Your task to perform on an android device: Check the weather Image 0: 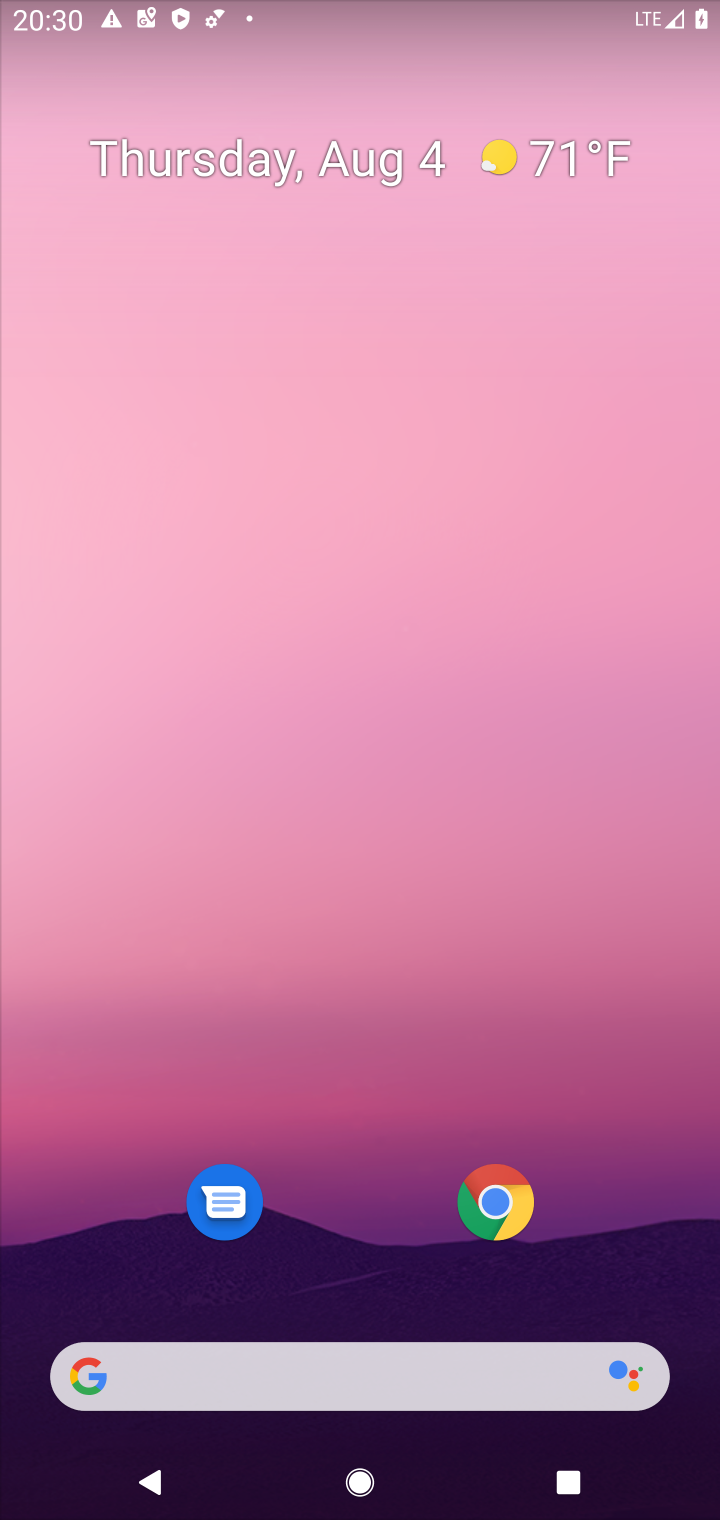
Step 0: drag from (358, 1075) to (358, 361)
Your task to perform on an android device: Check the weather Image 1: 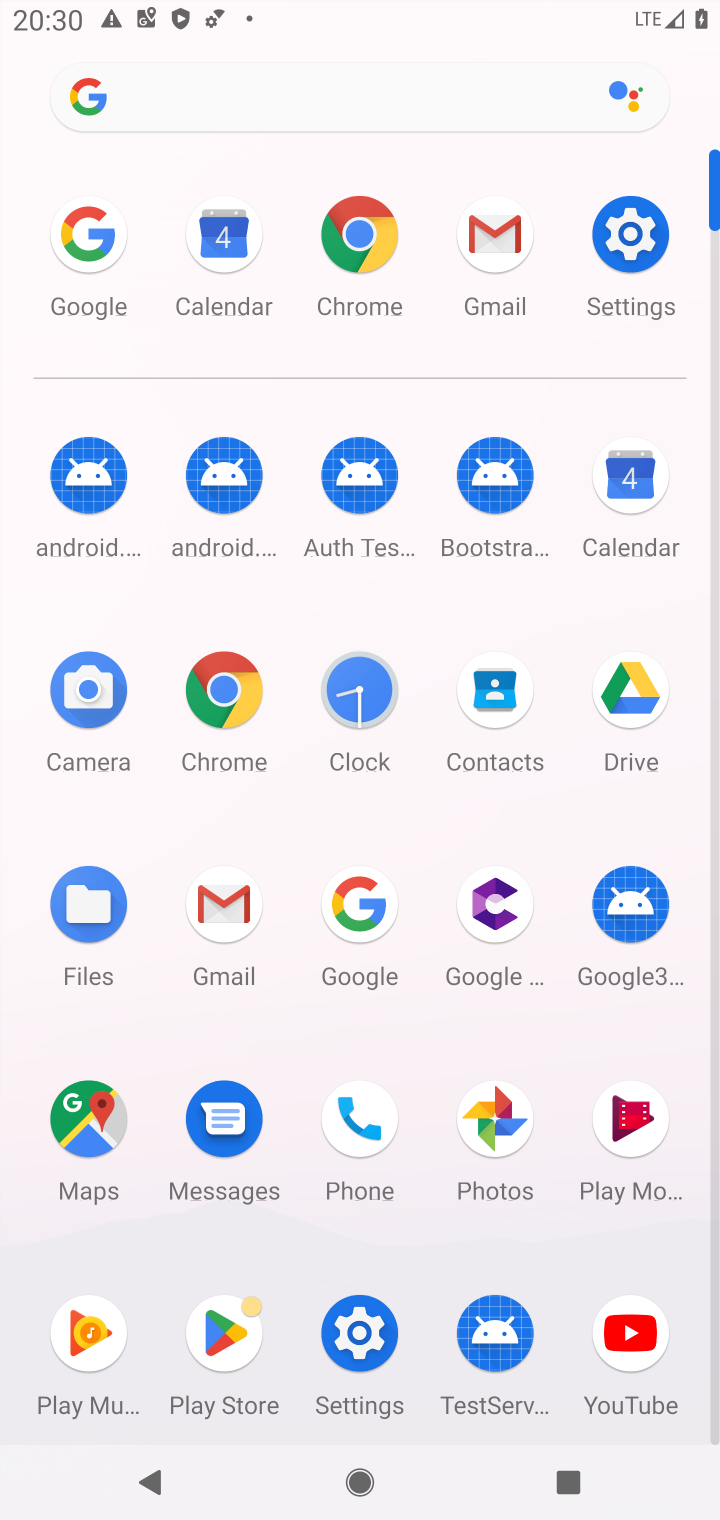
Step 1: click (351, 914)
Your task to perform on an android device: Check the weather Image 2: 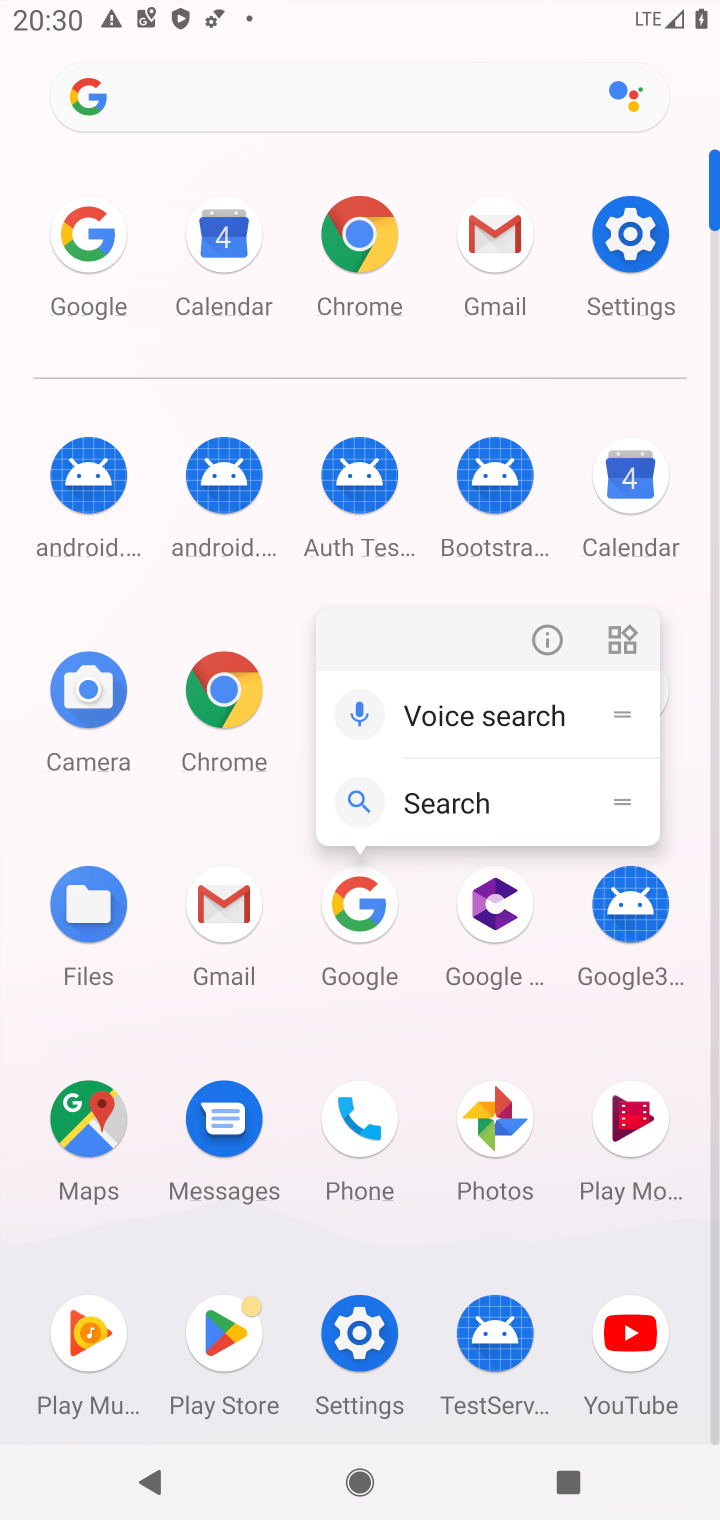
Step 2: click (353, 916)
Your task to perform on an android device: Check the weather Image 3: 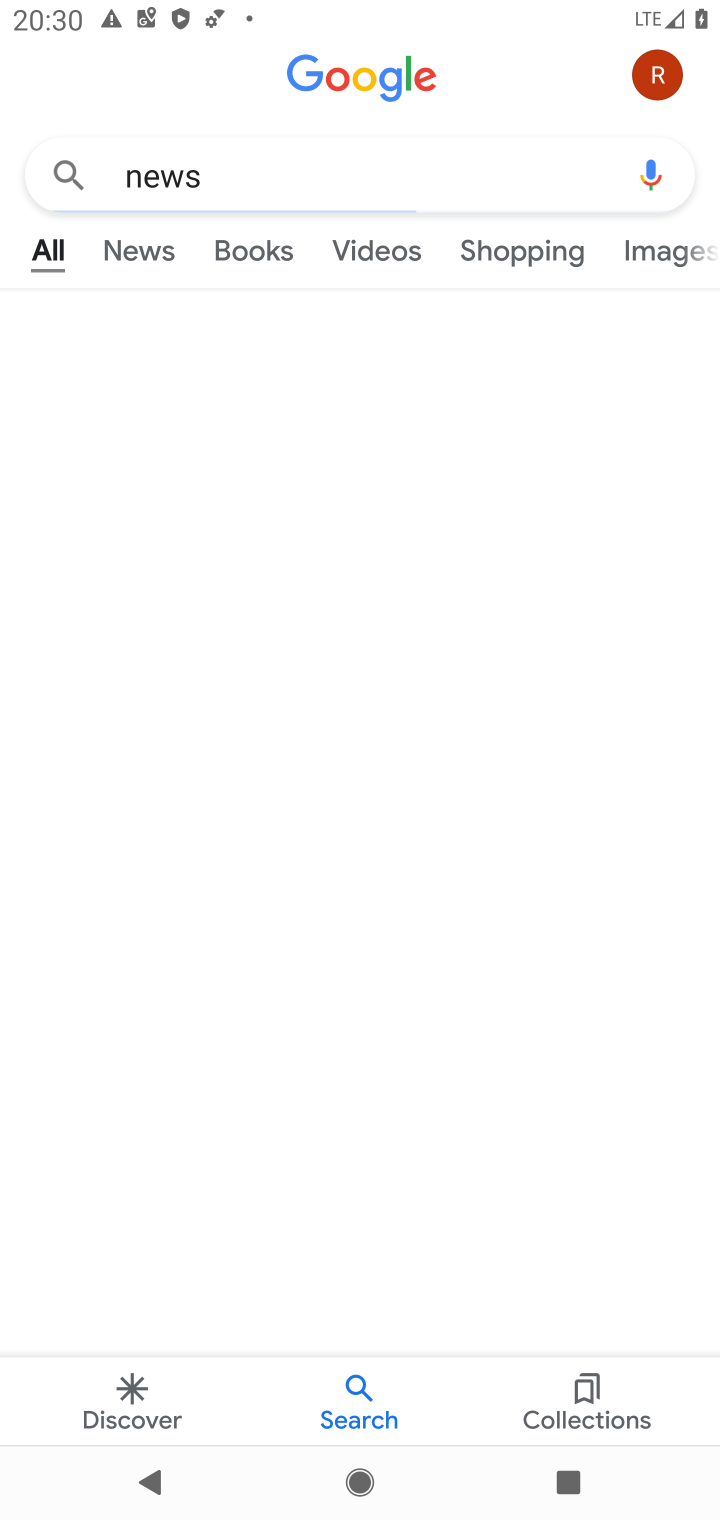
Step 3: click (265, 174)
Your task to perform on an android device: Check the weather Image 4: 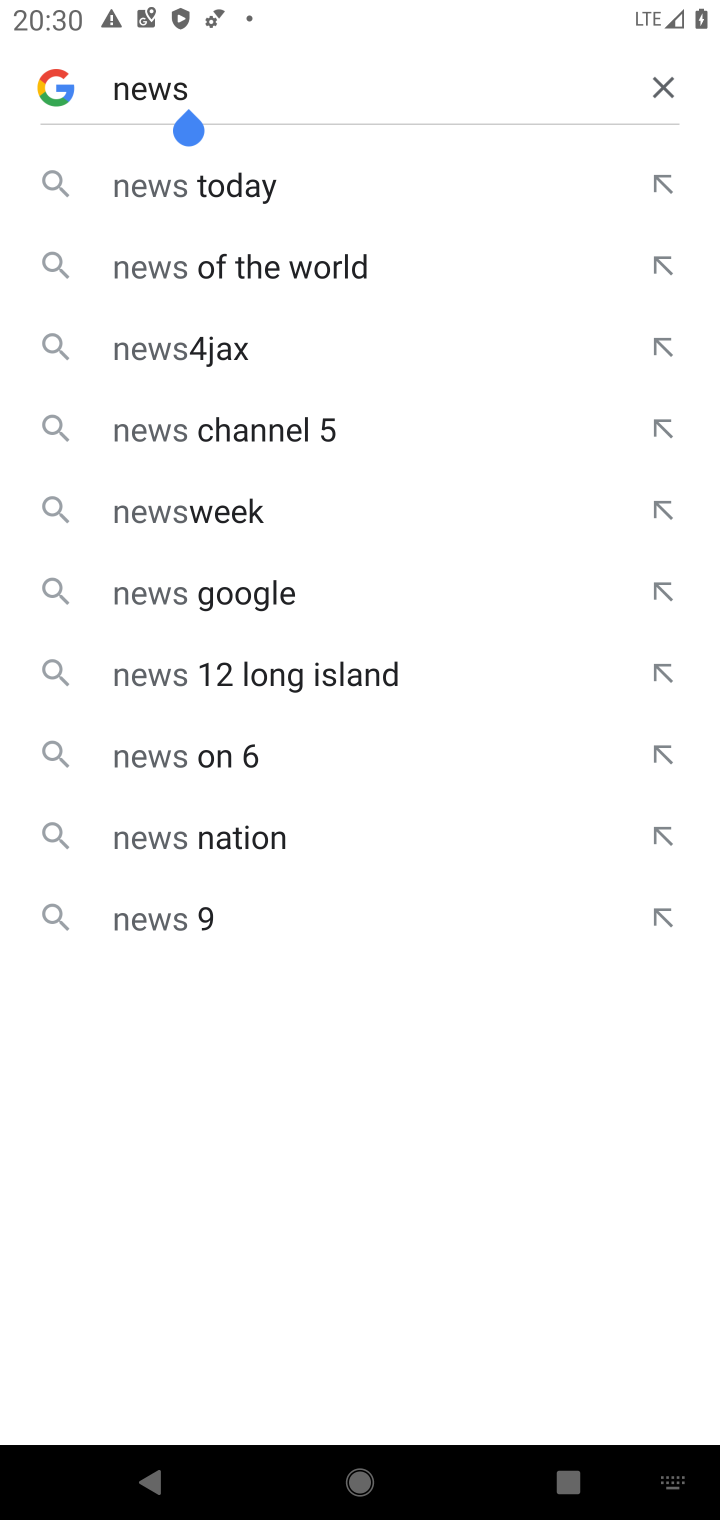
Step 4: click (654, 69)
Your task to perform on an android device: Check the weather Image 5: 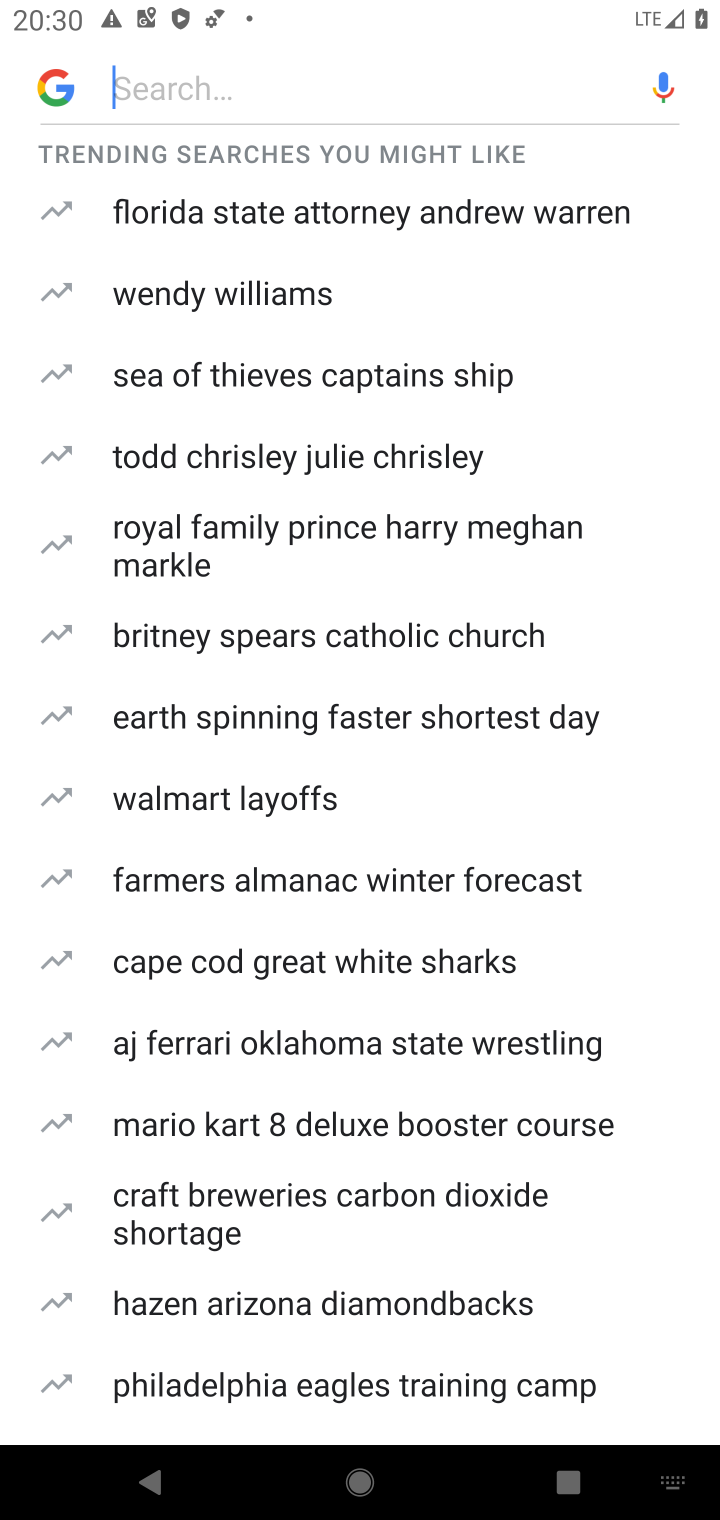
Step 5: type "weather"
Your task to perform on an android device: Check the weather Image 6: 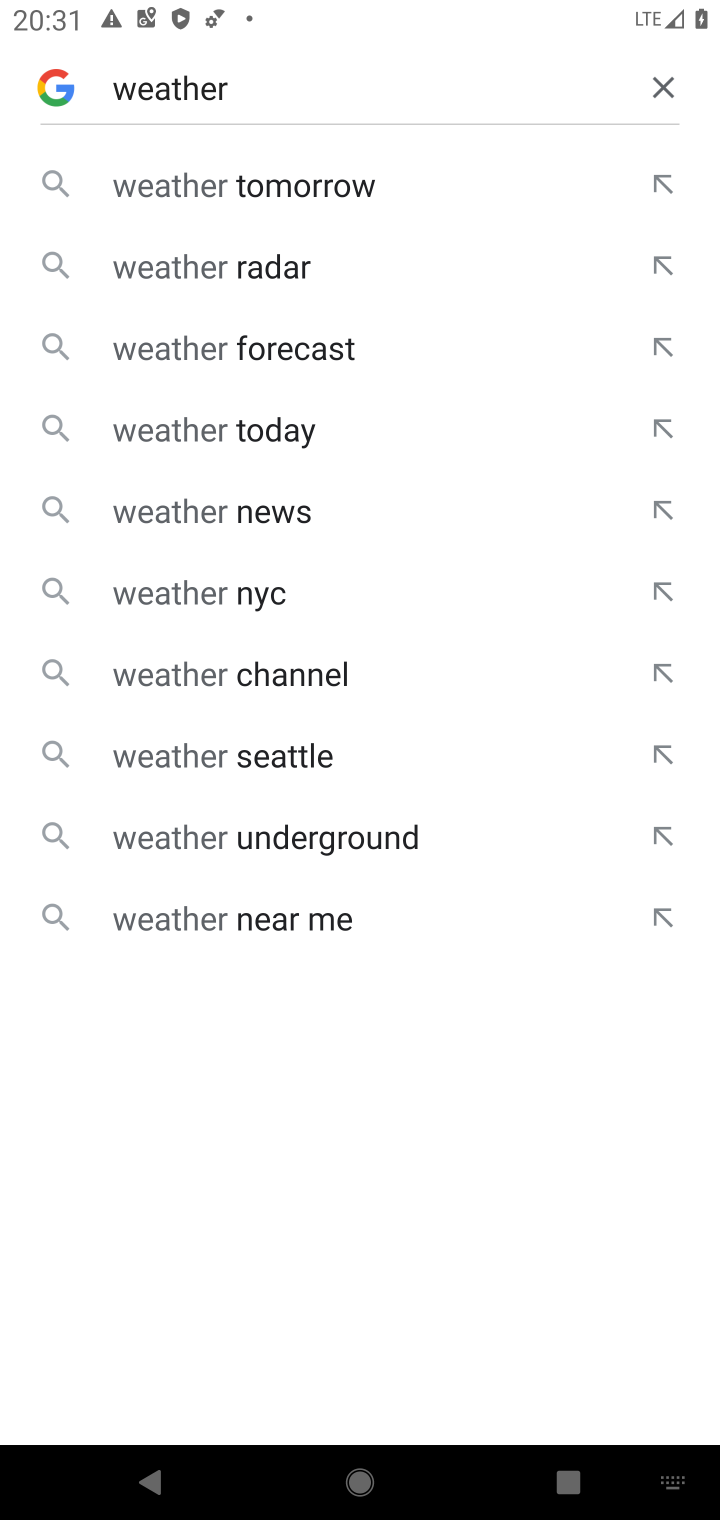
Step 6: click (219, 438)
Your task to perform on an android device: Check the weather Image 7: 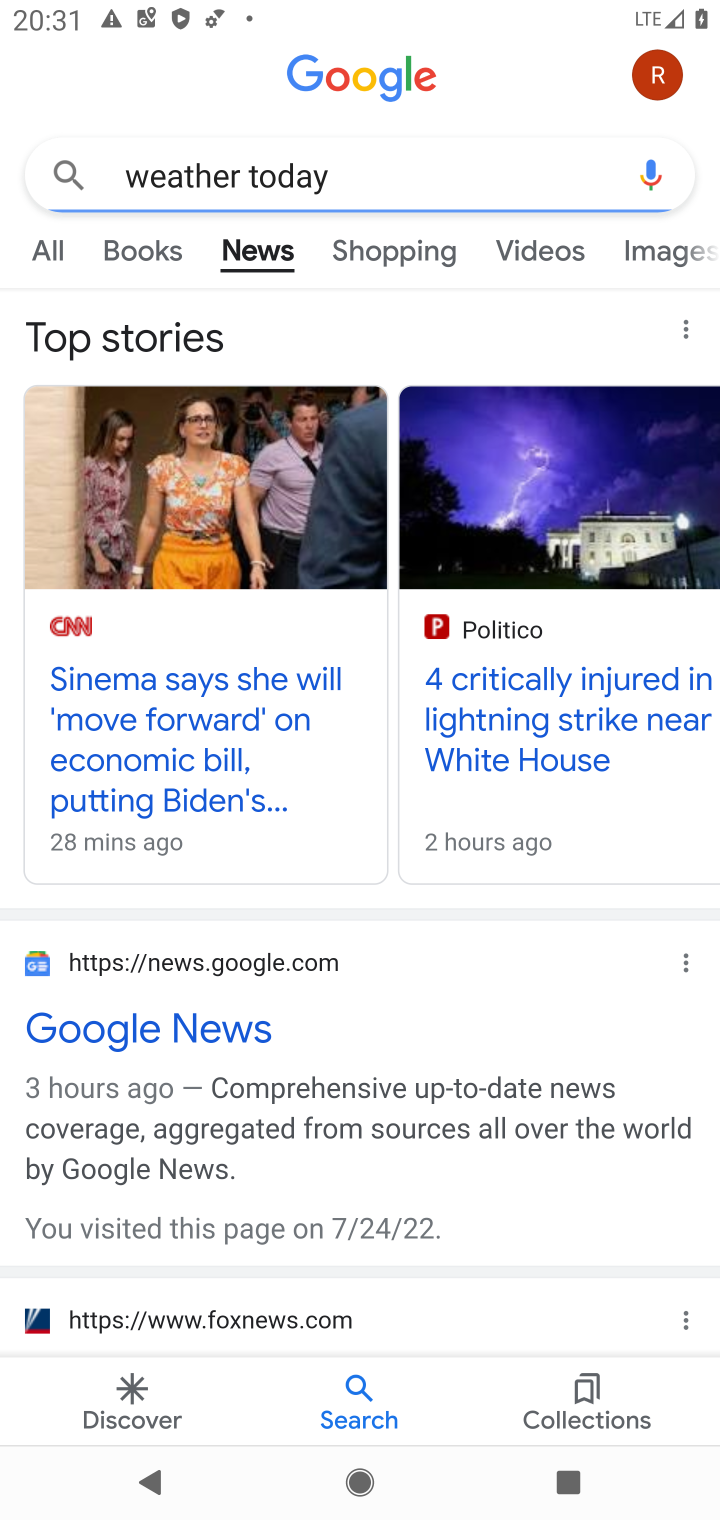
Step 7: click (55, 224)
Your task to perform on an android device: Check the weather Image 8: 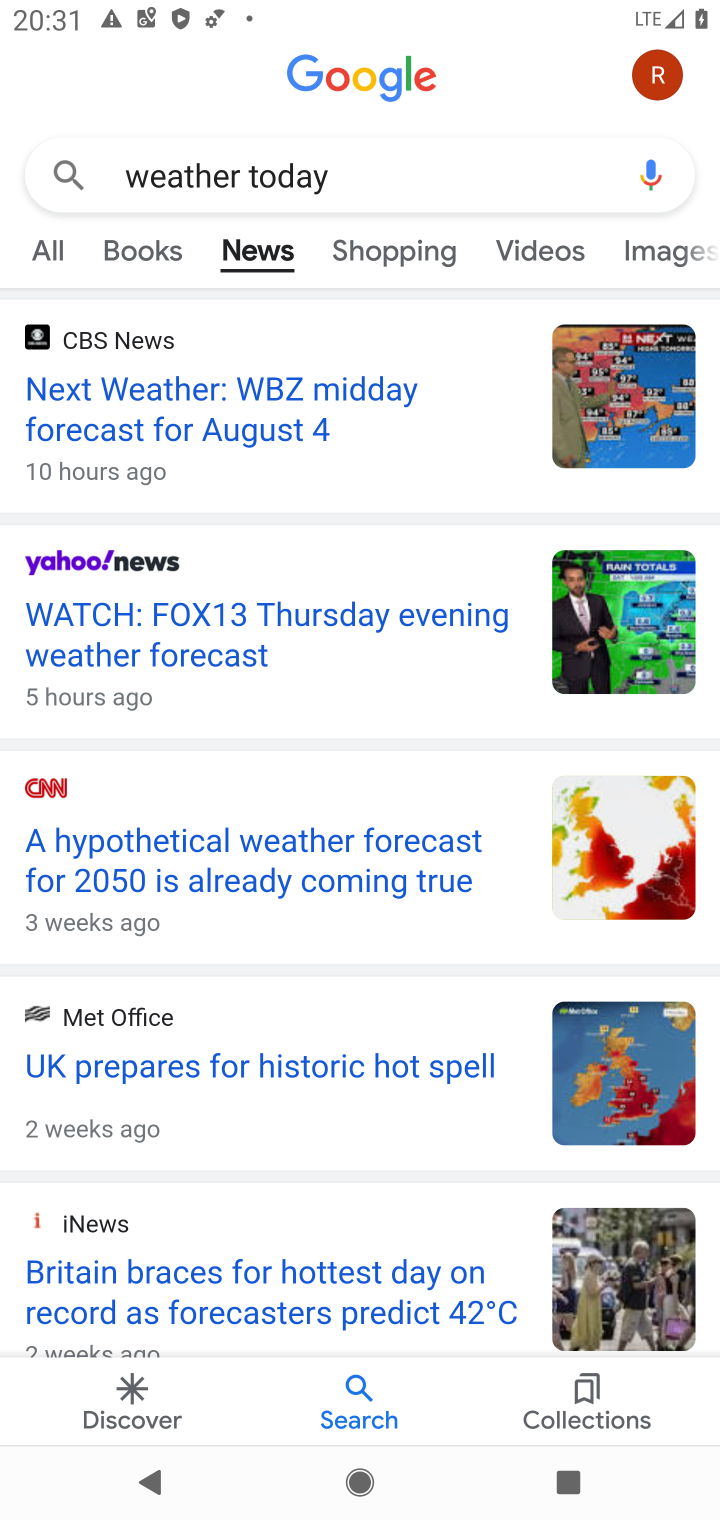
Step 8: click (50, 252)
Your task to perform on an android device: Check the weather Image 9: 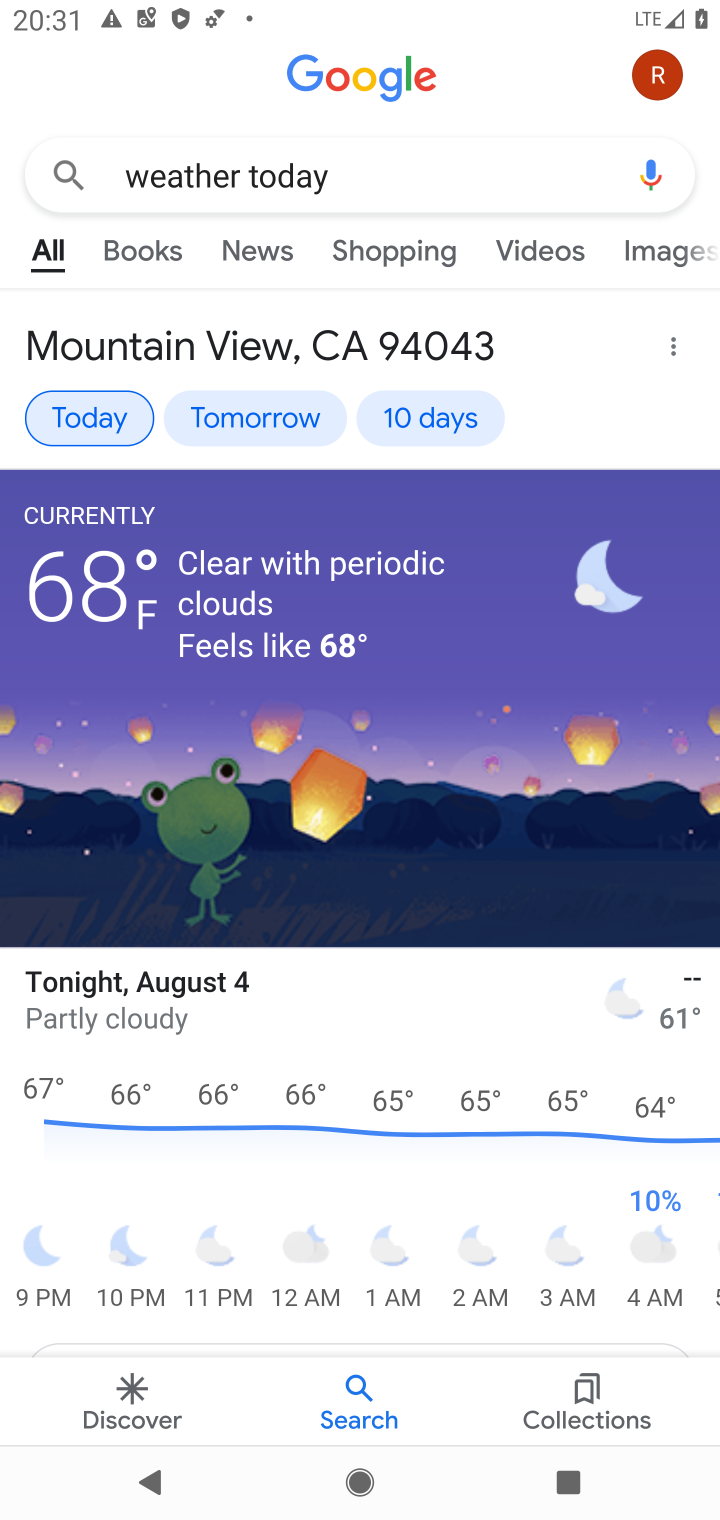
Step 9: task complete